Your task to perform on an android device: visit the assistant section in the google photos Image 0: 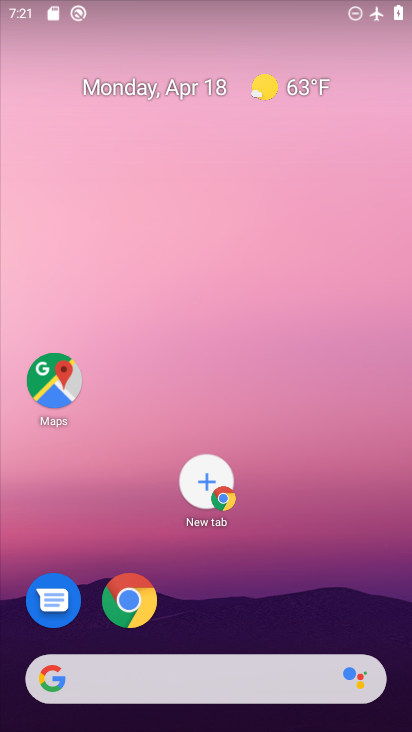
Step 0: drag from (297, 538) to (311, 1)
Your task to perform on an android device: visit the assistant section in the google photos Image 1: 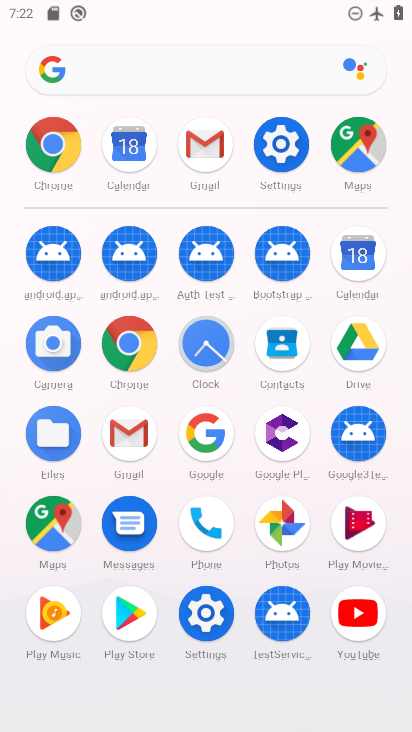
Step 1: click (290, 533)
Your task to perform on an android device: visit the assistant section in the google photos Image 2: 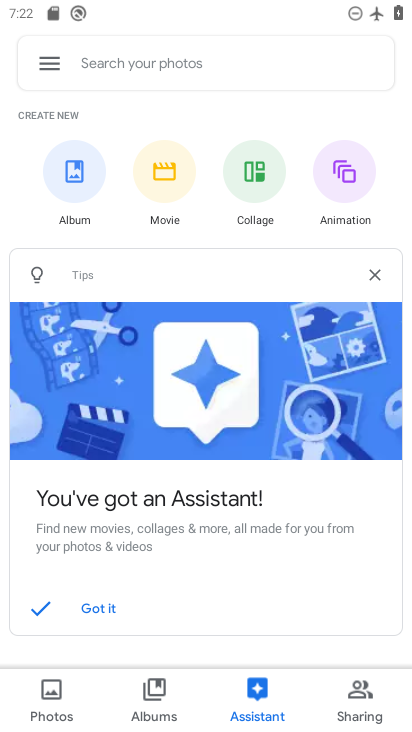
Step 2: click (259, 697)
Your task to perform on an android device: visit the assistant section in the google photos Image 3: 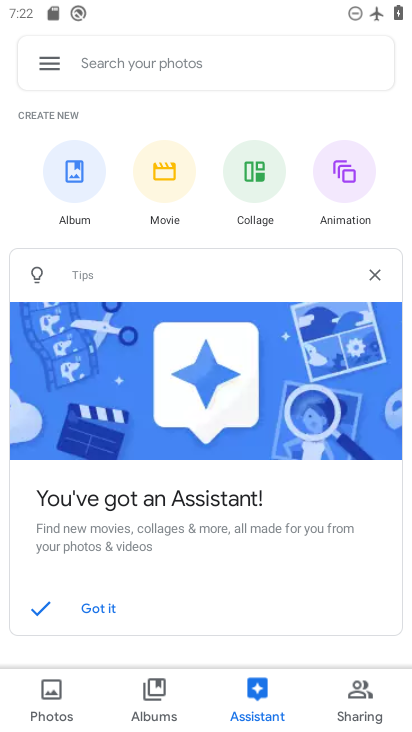
Step 3: task complete